Your task to perform on an android device: make emails show in primary in the gmail app Image 0: 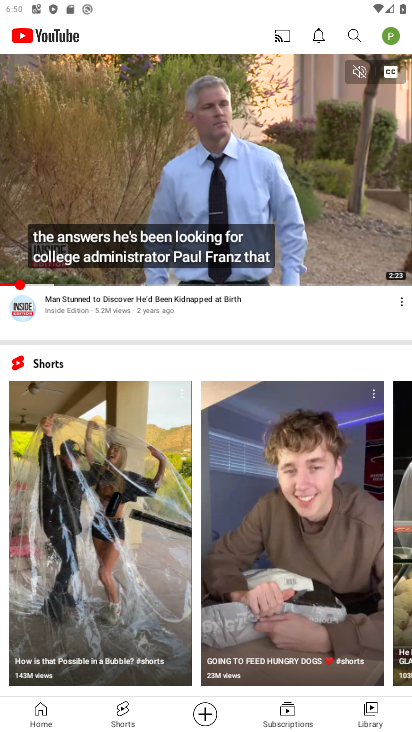
Step 0: press home button
Your task to perform on an android device: make emails show in primary in the gmail app Image 1: 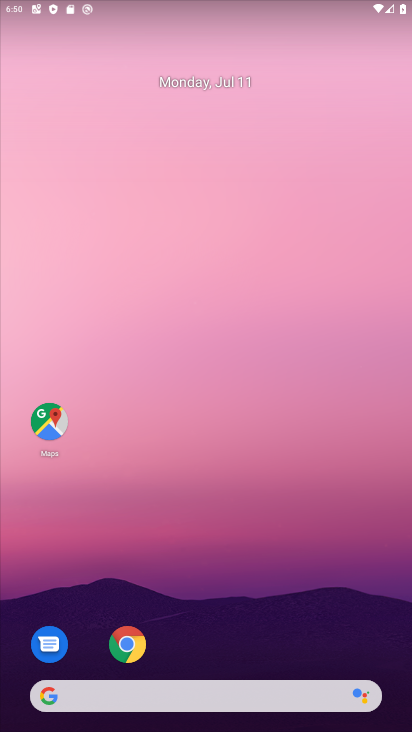
Step 1: drag from (304, 703) to (346, 0)
Your task to perform on an android device: make emails show in primary in the gmail app Image 2: 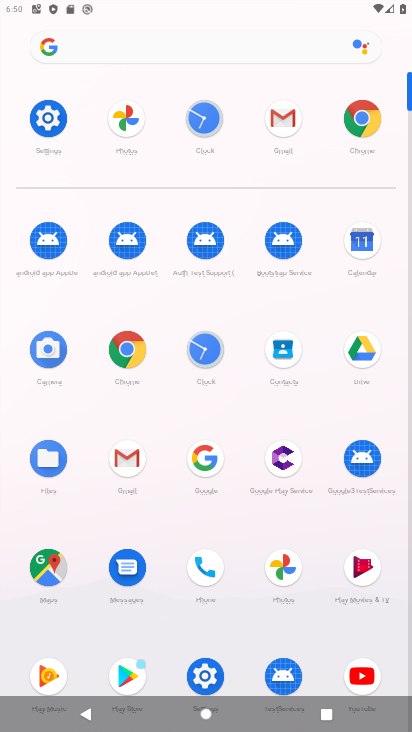
Step 2: click (126, 448)
Your task to perform on an android device: make emails show in primary in the gmail app Image 3: 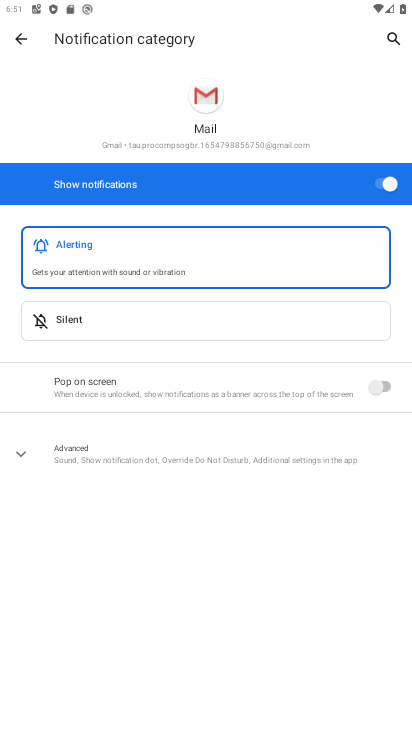
Step 3: press back button
Your task to perform on an android device: make emails show in primary in the gmail app Image 4: 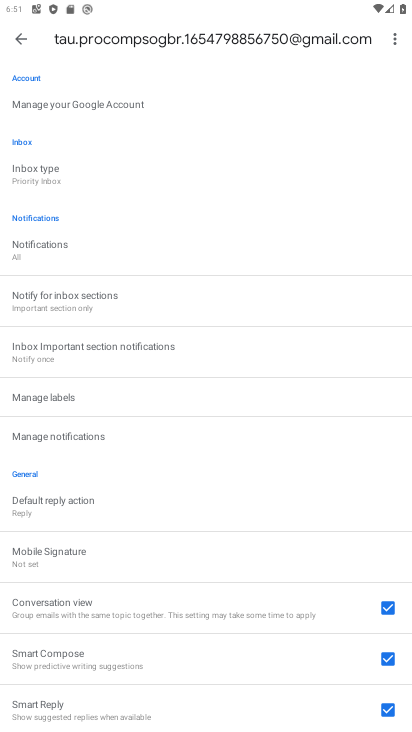
Step 4: press back button
Your task to perform on an android device: make emails show in primary in the gmail app Image 5: 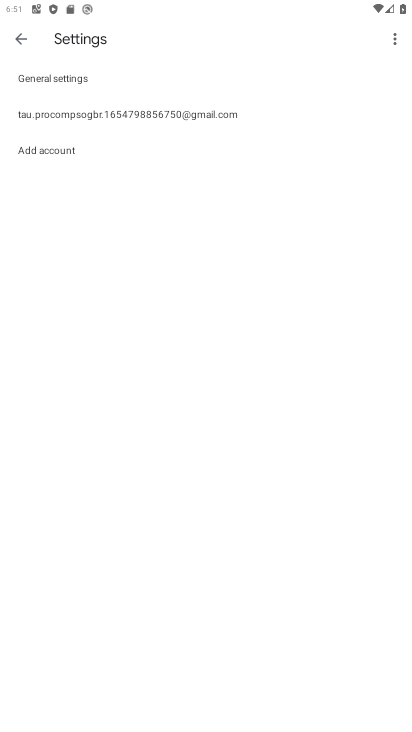
Step 5: click (132, 111)
Your task to perform on an android device: make emails show in primary in the gmail app Image 6: 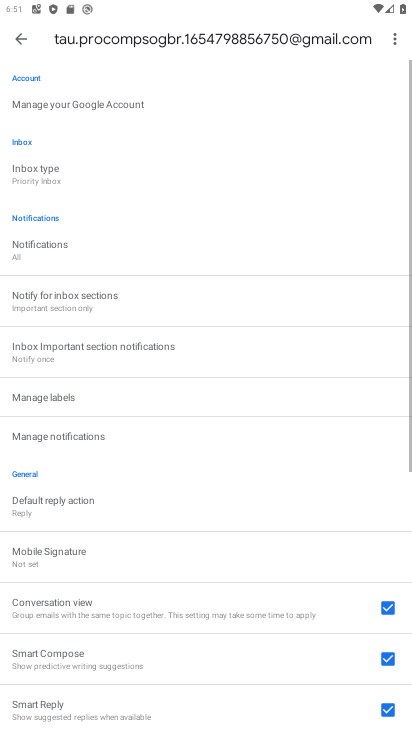
Step 6: click (64, 166)
Your task to perform on an android device: make emails show in primary in the gmail app Image 7: 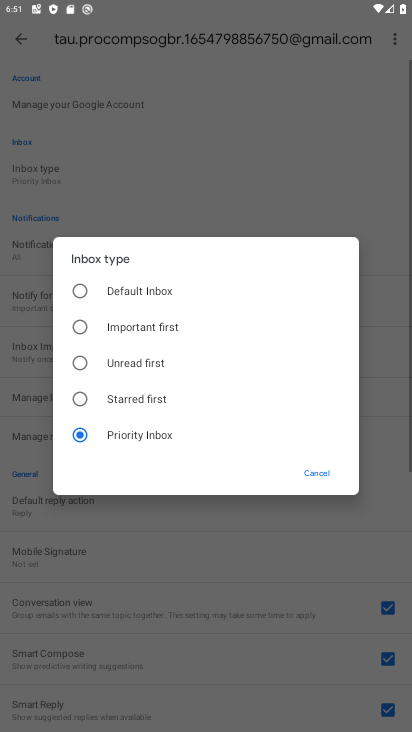
Step 7: click (129, 289)
Your task to perform on an android device: make emails show in primary in the gmail app Image 8: 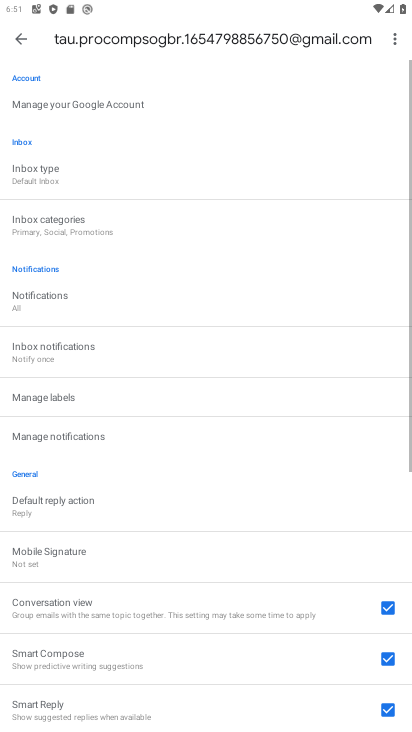
Step 8: press back button
Your task to perform on an android device: make emails show in primary in the gmail app Image 9: 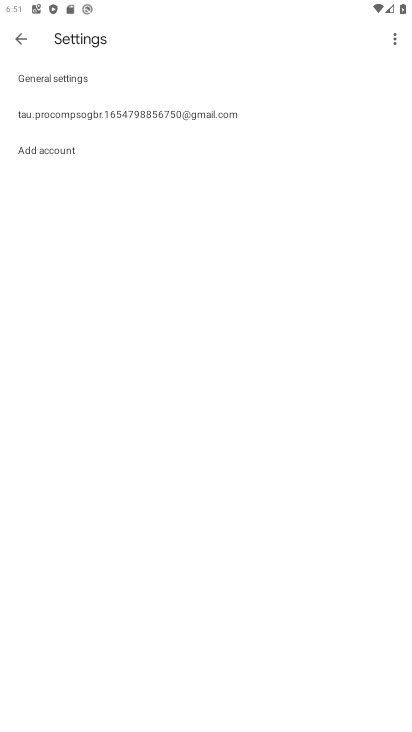
Step 9: press back button
Your task to perform on an android device: make emails show in primary in the gmail app Image 10: 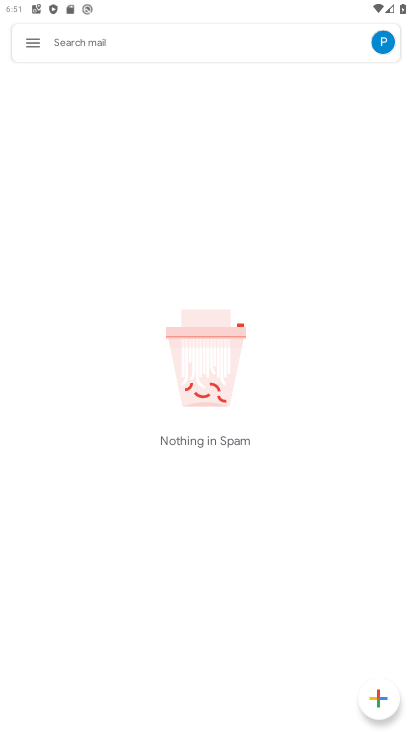
Step 10: click (32, 39)
Your task to perform on an android device: make emails show in primary in the gmail app Image 11: 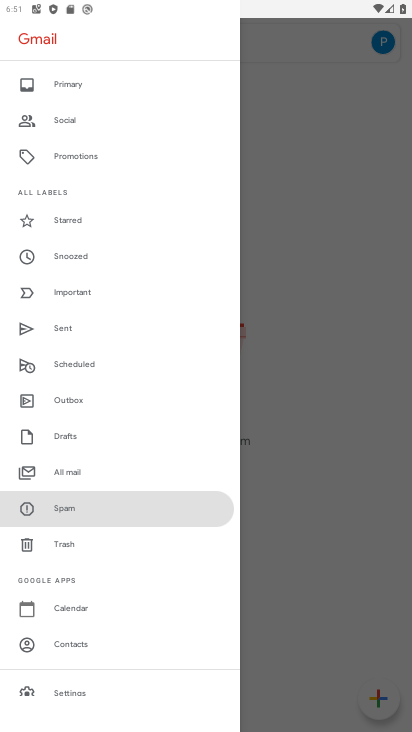
Step 11: click (89, 90)
Your task to perform on an android device: make emails show in primary in the gmail app Image 12: 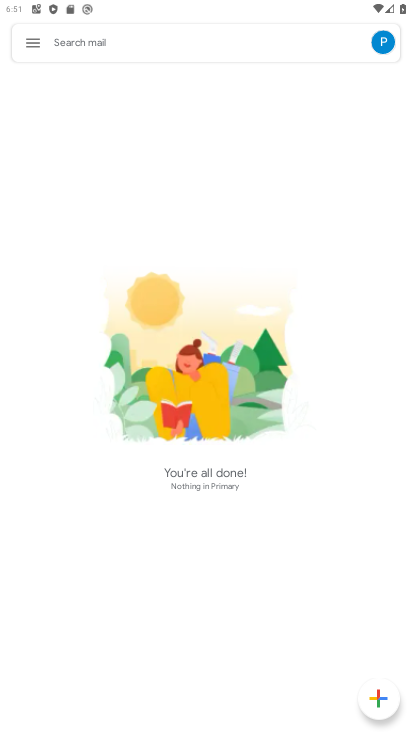
Step 12: task complete